Your task to perform on an android device: set the stopwatch Image 0: 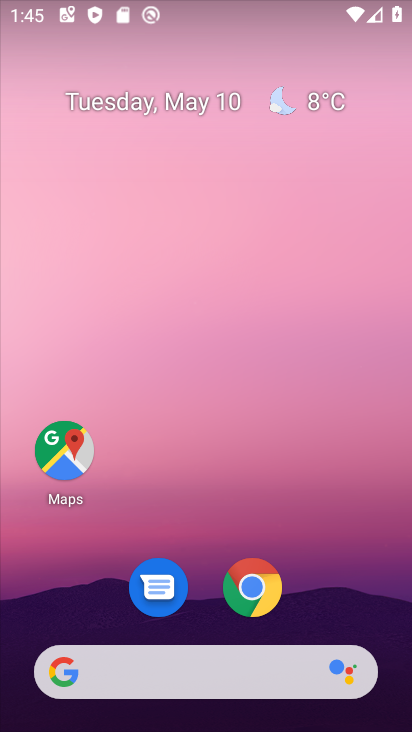
Step 0: drag from (336, 587) to (271, 32)
Your task to perform on an android device: set the stopwatch Image 1: 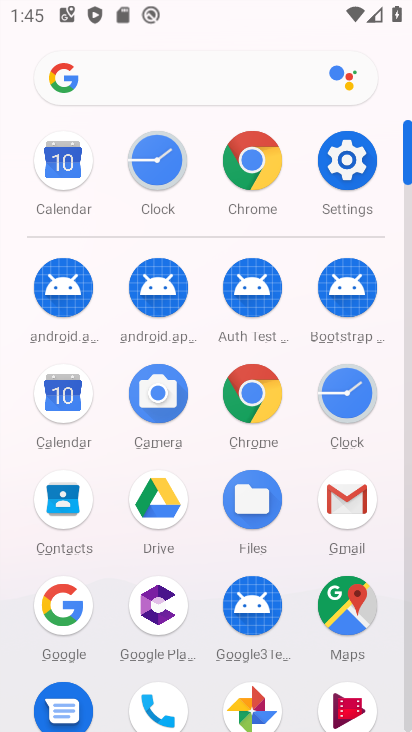
Step 1: click (348, 399)
Your task to perform on an android device: set the stopwatch Image 2: 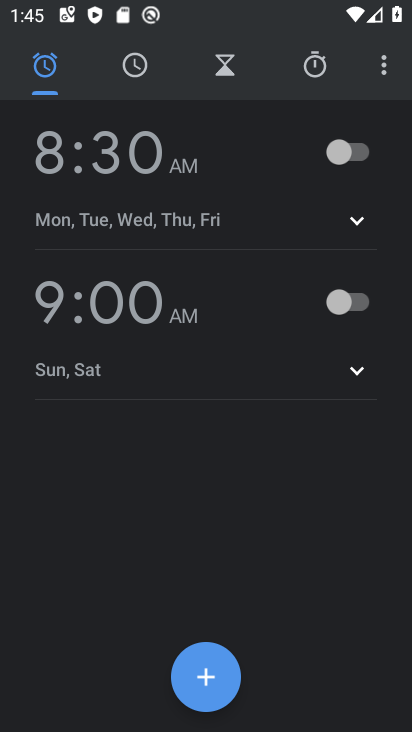
Step 2: click (332, 81)
Your task to perform on an android device: set the stopwatch Image 3: 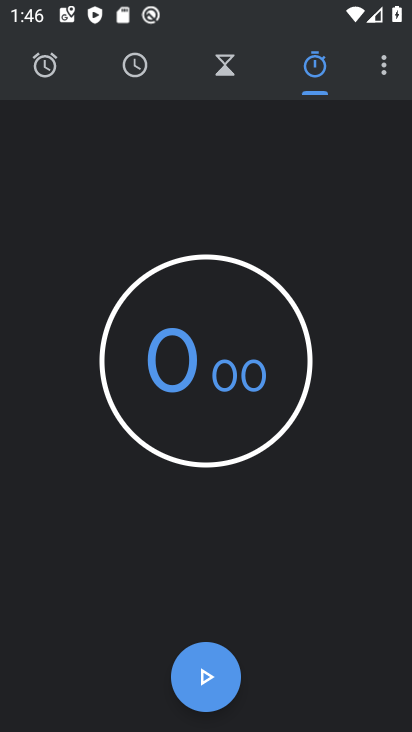
Step 3: task complete